Your task to perform on an android device: toggle location history Image 0: 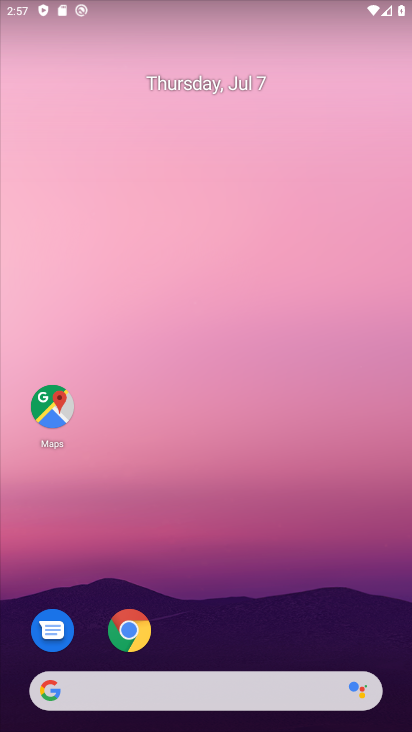
Step 0: drag from (216, 634) to (229, 71)
Your task to perform on an android device: toggle location history Image 1: 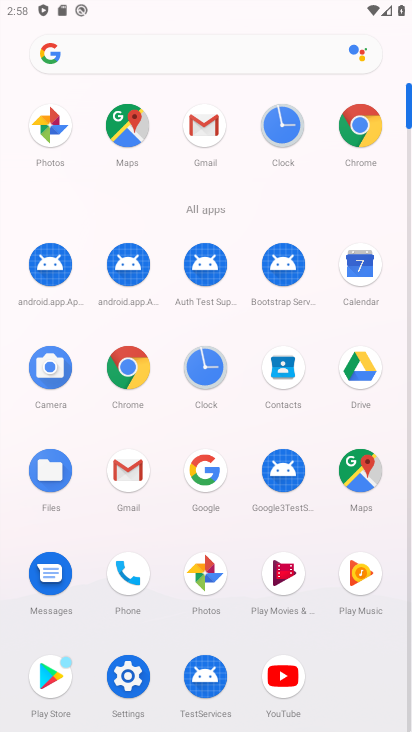
Step 1: click (124, 683)
Your task to perform on an android device: toggle location history Image 2: 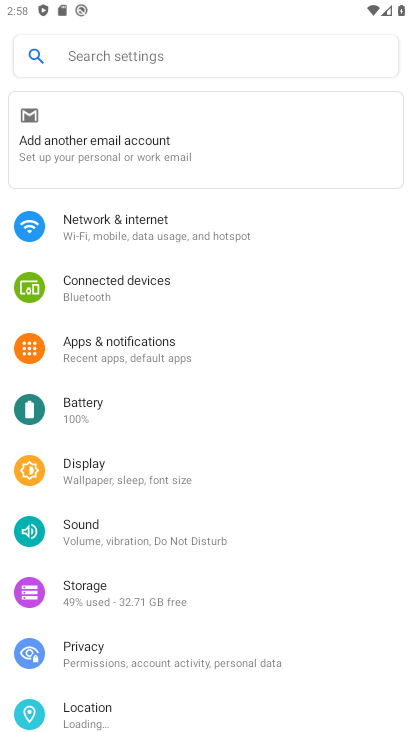
Step 2: click (87, 704)
Your task to perform on an android device: toggle location history Image 3: 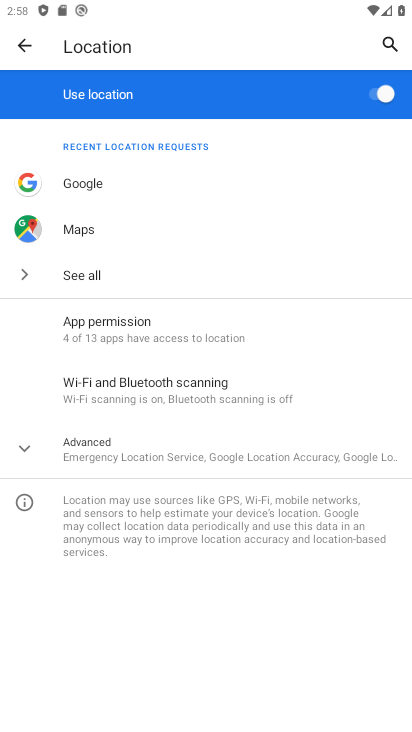
Step 3: click (128, 442)
Your task to perform on an android device: toggle location history Image 4: 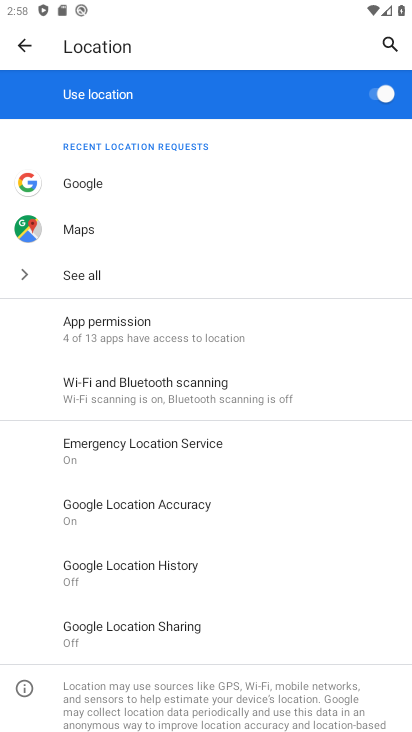
Step 4: click (117, 570)
Your task to perform on an android device: toggle location history Image 5: 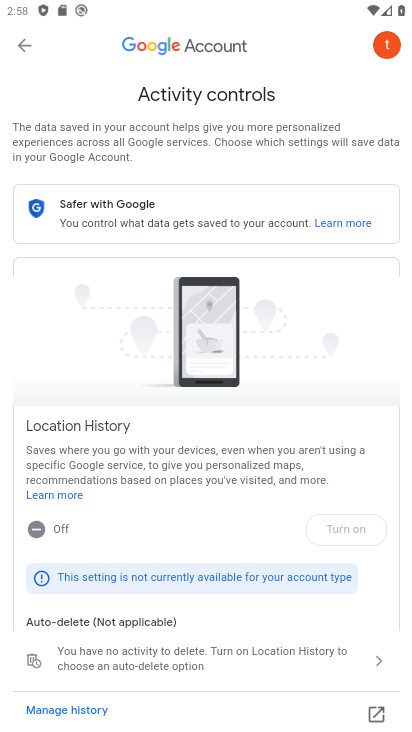
Step 5: drag from (197, 560) to (221, 324)
Your task to perform on an android device: toggle location history Image 6: 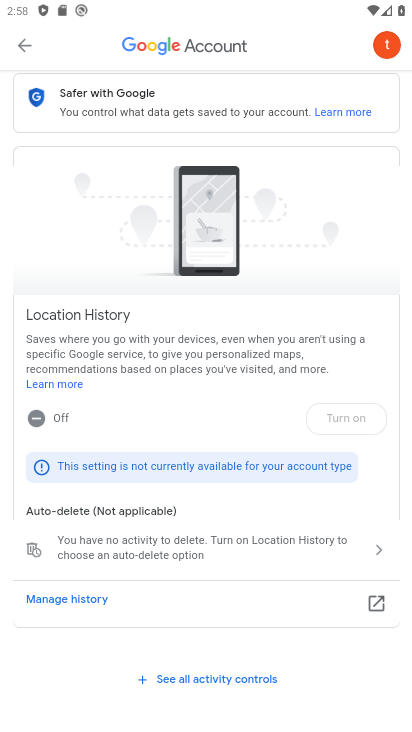
Step 6: click (357, 418)
Your task to perform on an android device: toggle location history Image 7: 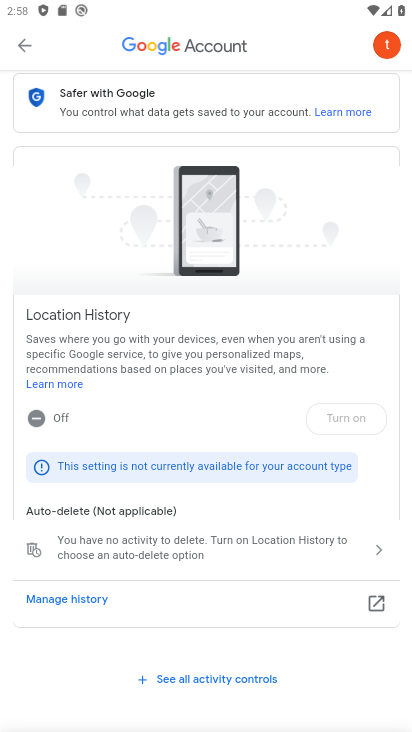
Step 7: click (358, 417)
Your task to perform on an android device: toggle location history Image 8: 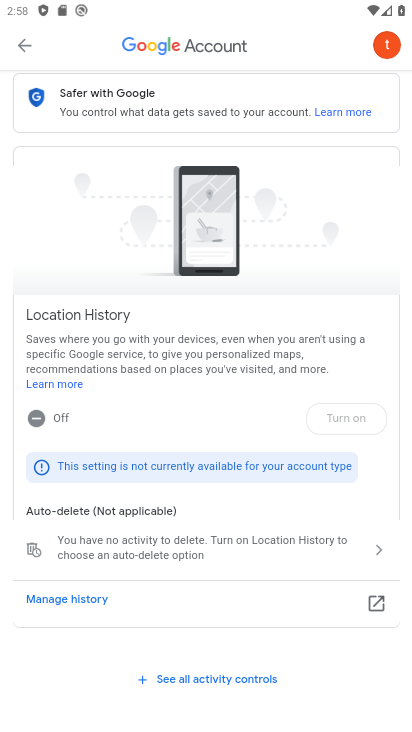
Step 8: task complete